Your task to perform on an android device: Clear the shopping cart on walmart. Image 0: 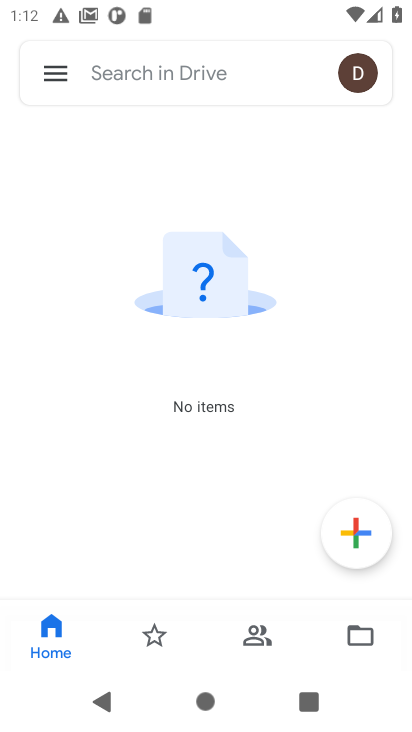
Step 0: press home button
Your task to perform on an android device: Clear the shopping cart on walmart. Image 1: 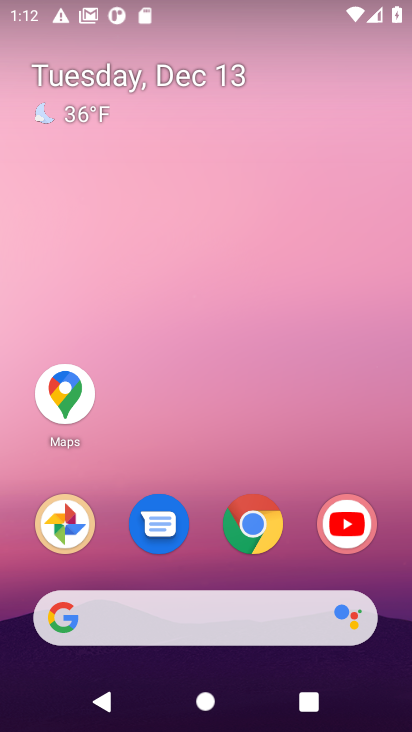
Step 1: click (257, 520)
Your task to perform on an android device: Clear the shopping cart on walmart. Image 2: 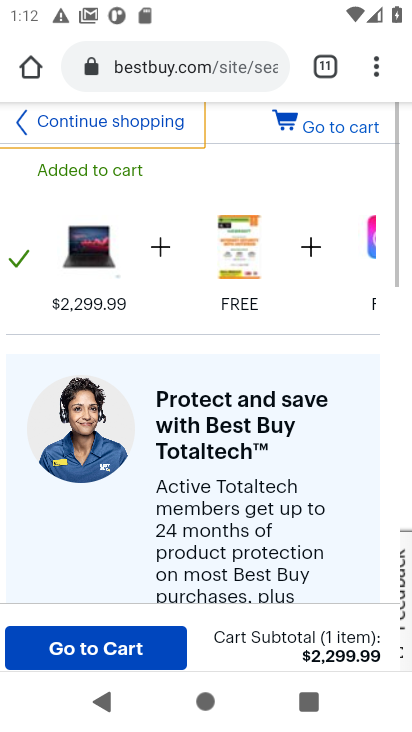
Step 2: click (149, 71)
Your task to perform on an android device: Clear the shopping cart on walmart. Image 3: 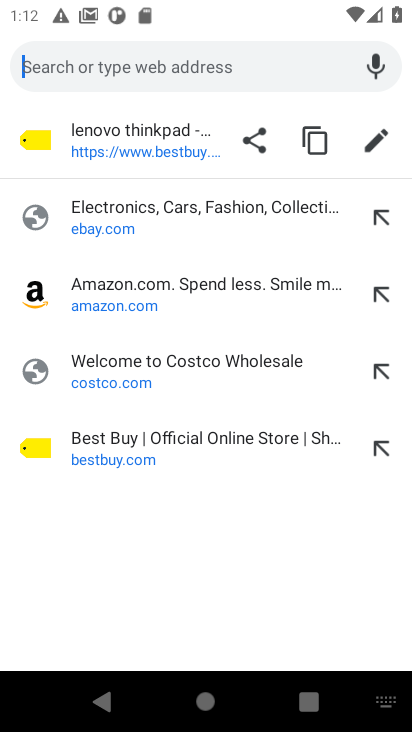
Step 3: type "walmart.com"
Your task to perform on an android device: Clear the shopping cart on walmart. Image 4: 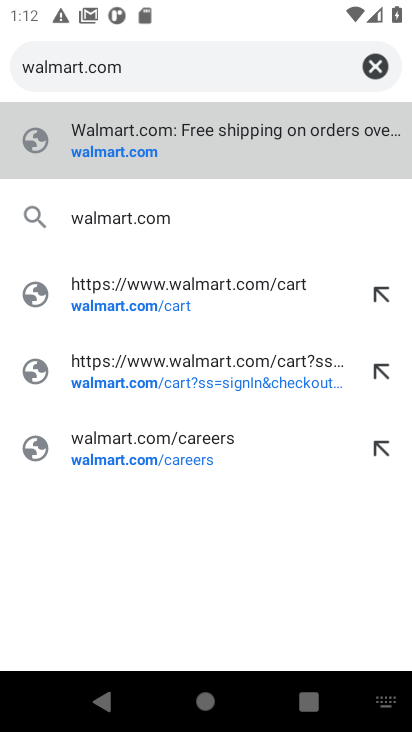
Step 4: click (116, 156)
Your task to perform on an android device: Clear the shopping cart on walmart. Image 5: 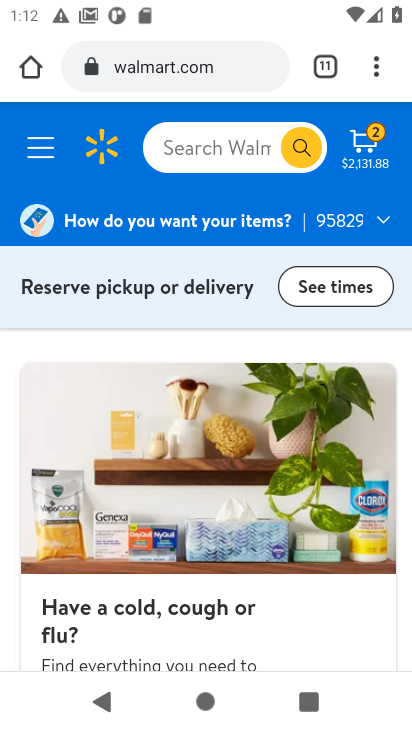
Step 5: click (367, 153)
Your task to perform on an android device: Clear the shopping cart on walmart. Image 6: 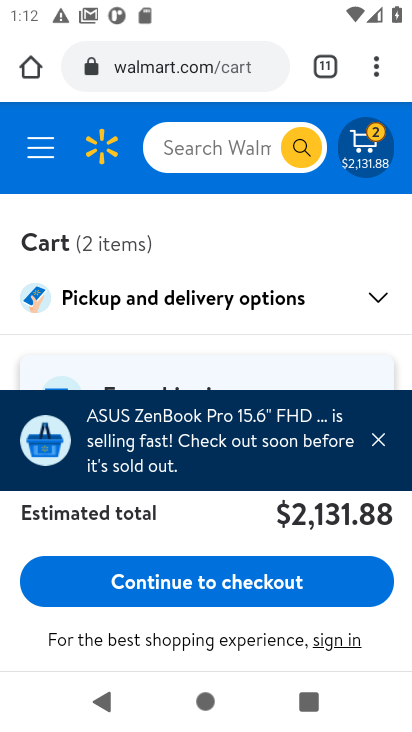
Step 6: click (379, 446)
Your task to perform on an android device: Clear the shopping cart on walmart. Image 7: 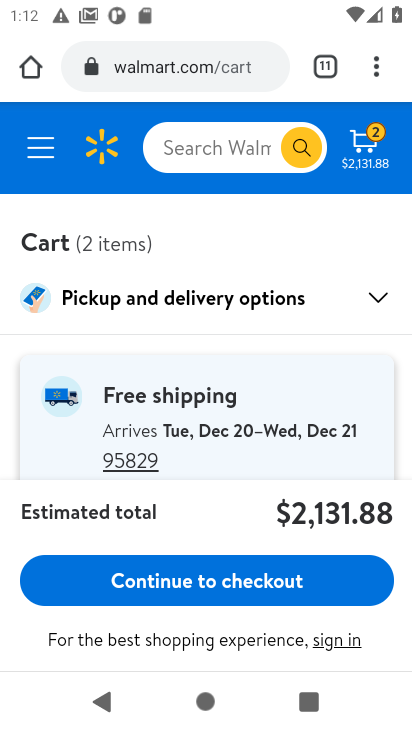
Step 7: drag from (262, 473) to (234, 218)
Your task to perform on an android device: Clear the shopping cart on walmart. Image 8: 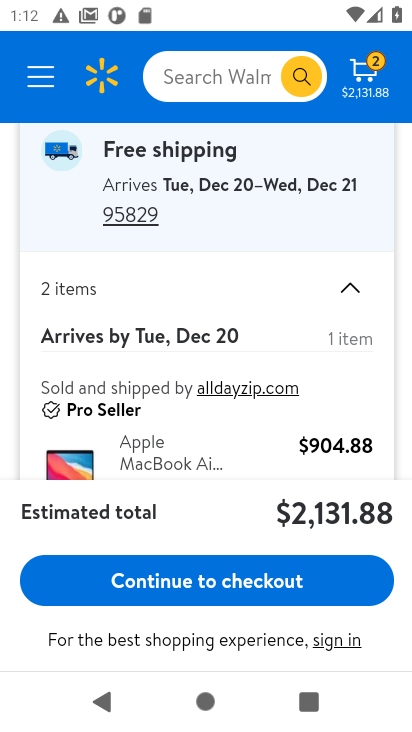
Step 8: drag from (218, 405) to (204, 208)
Your task to perform on an android device: Clear the shopping cart on walmart. Image 9: 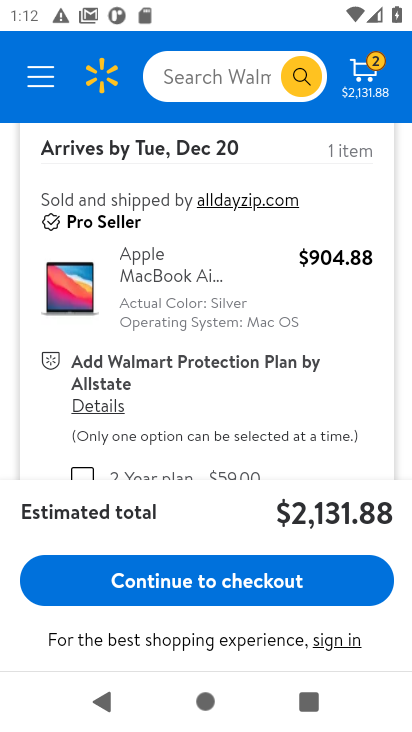
Step 9: drag from (192, 402) to (195, 210)
Your task to perform on an android device: Clear the shopping cart on walmart. Image 10: 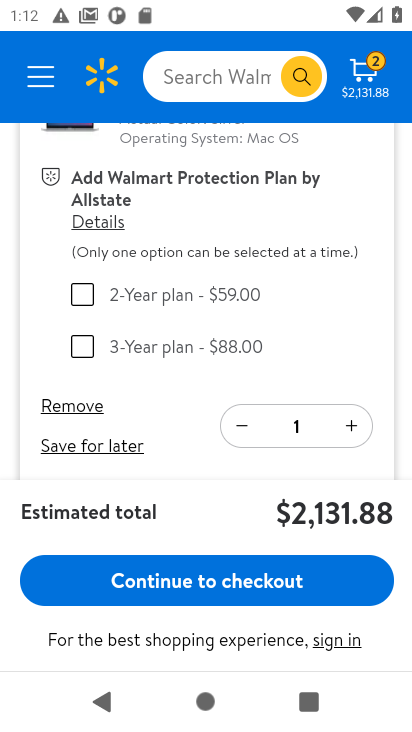
Step 10: click (81, 411)
Your task to perform on an android device: Clear the shopping cart on walmart. Image 11: 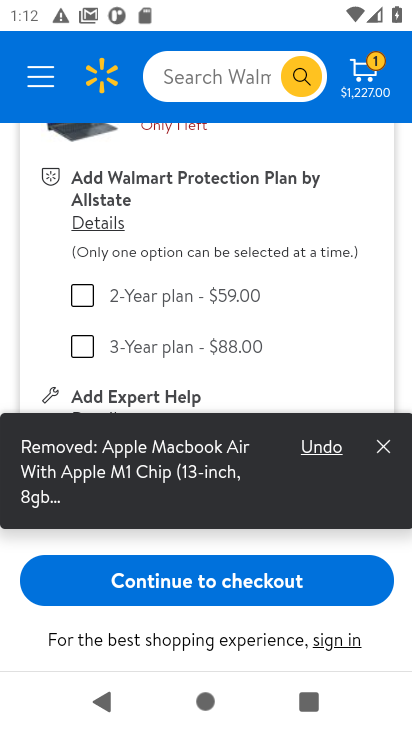
Step 11: click (380, 449)
Your task to perform on an android device: Clear the shopping cart on walmart. Image 12: 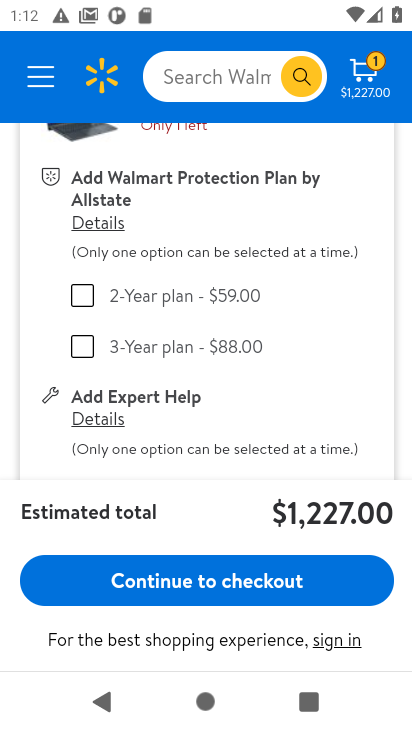
Step 12: drag from (165, 441) to (163, 239)
Your task to perform on an android device: Clear the shopping cart on walmart. Image 13: 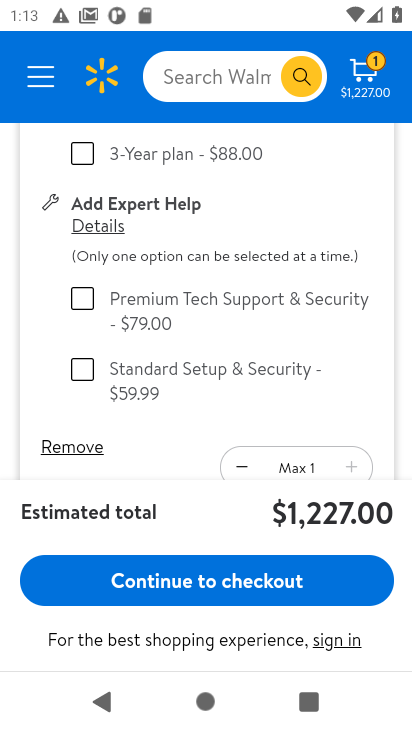
Step 13: drag from (160, 438) to (148, 303)
Your task to perform on an android device: Clear the shopping cart on walmart. Image 14: 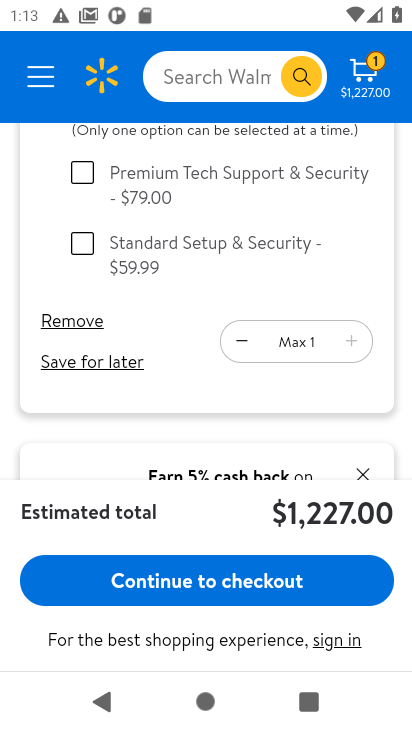
Step 14: click (51, 323)
Your task to perform on an android device: Clear the shopping cart on walmart. Image 15: 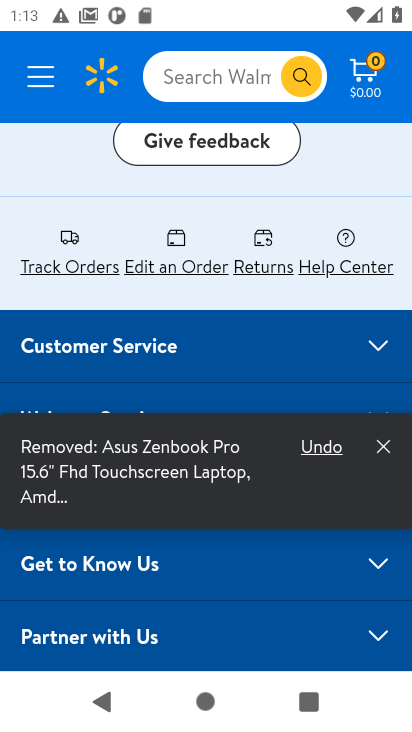
Step 15: click (389, 452)
Your task to perform on an android device: Clear the shopping cart on walmart. Image 16: 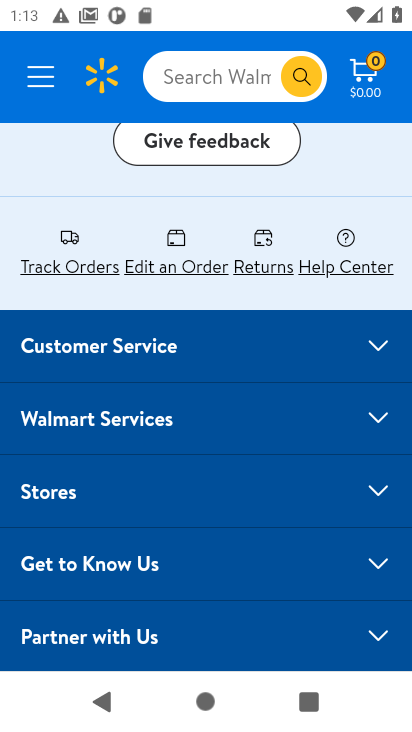
Step 16: task complete